Your task to perform on an android device: Open Google Maps Image 0: 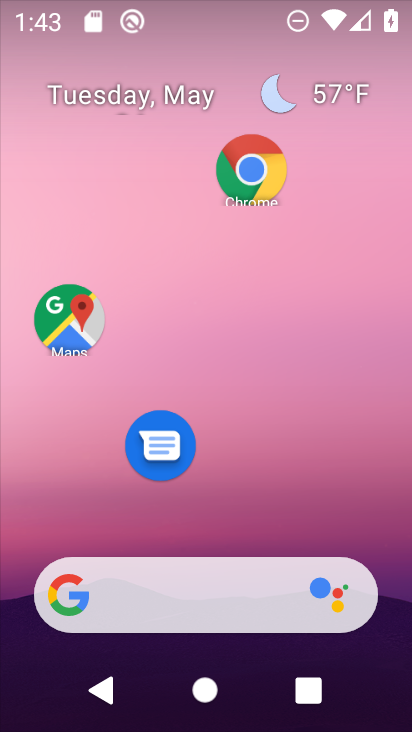
Step 0: drag from (220, 712) to (210, 146)
Your task to perform on an android device: Open Google Maps Image 1: 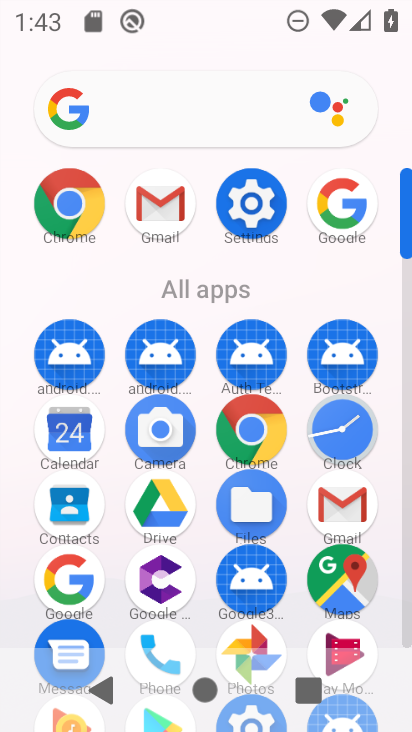
Step 1: click (335, 570)
Your task to perform on an android device: Open Google Maps Image 2: 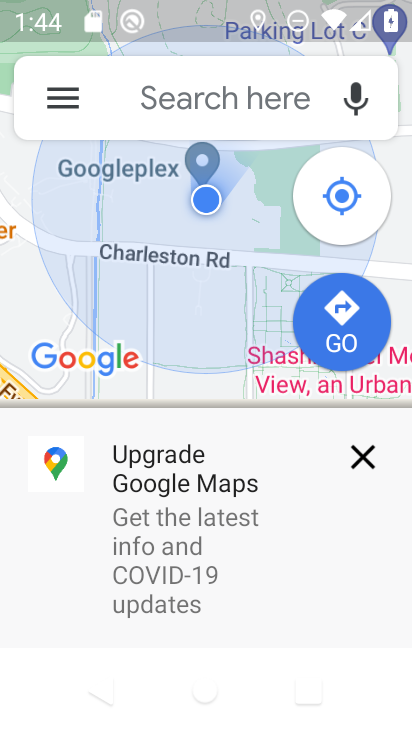
Step 2: task complete